Your task to perform on an android device: Open Google Chrome Image 0: 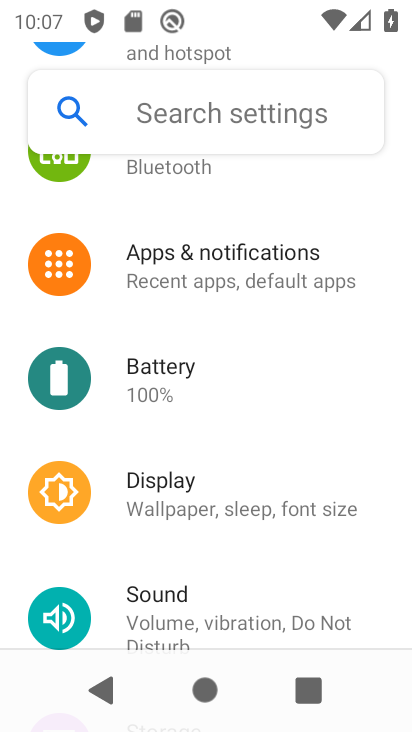
Step 0: press home button
Your task to perform on an android device: Open Google Chrome Image 1: 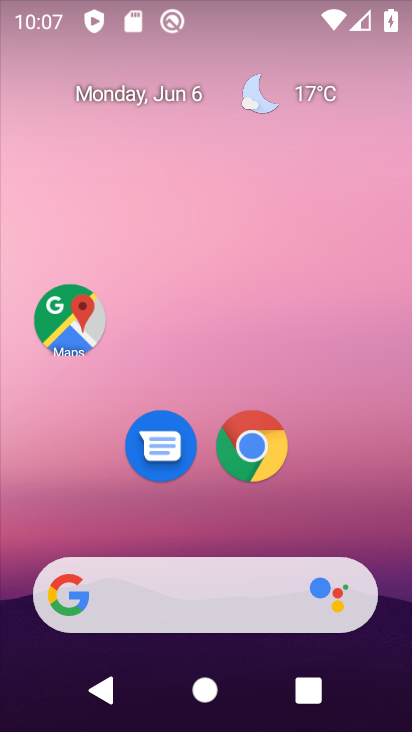
Step 1: click (237, 451)
Your task to perform on an android device: Open Google Chrome Image 2: 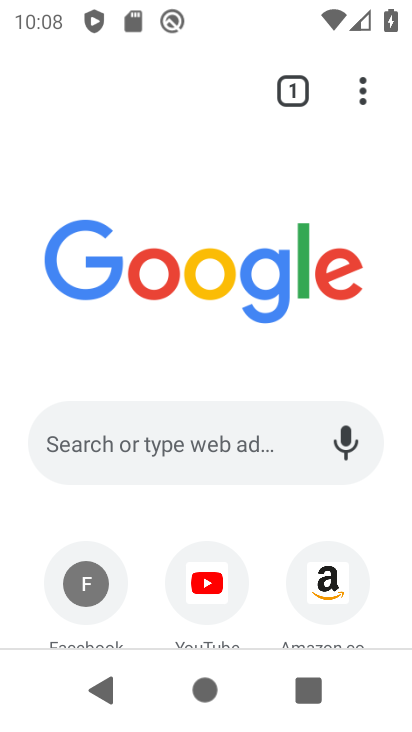
Step 2: task complete